Your task to perform on an android device: open a bookmark in the chrome app Image 0: 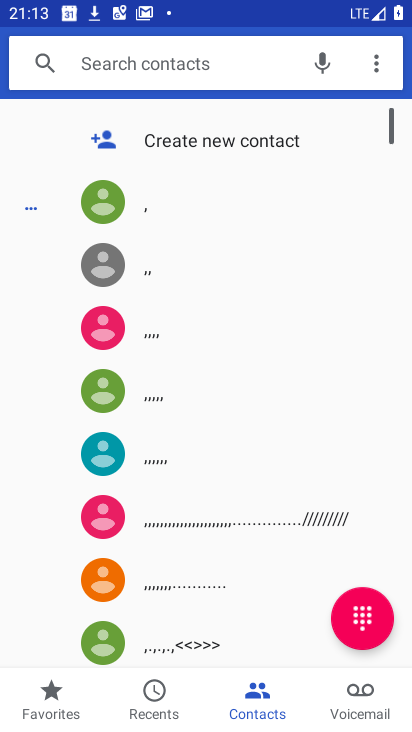
Step 0: press home button
Your task to perform on an android device: open a bookmark in the chrome app Image 1: 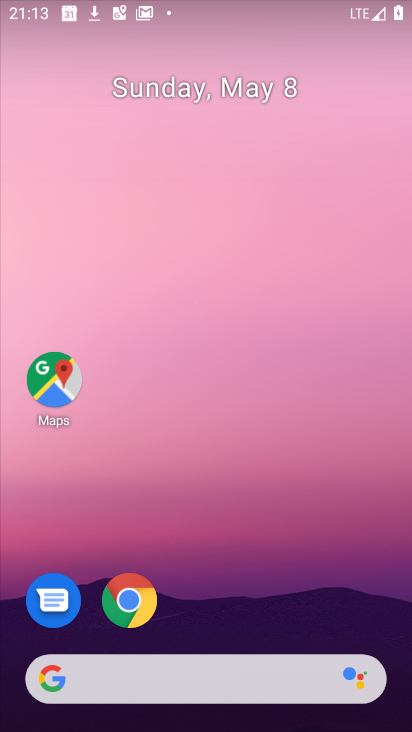
Step 1: drag from (216, 679) to (272, 233)
Your task to perform on an android device: open a bookmark in the chrome app Image 2: 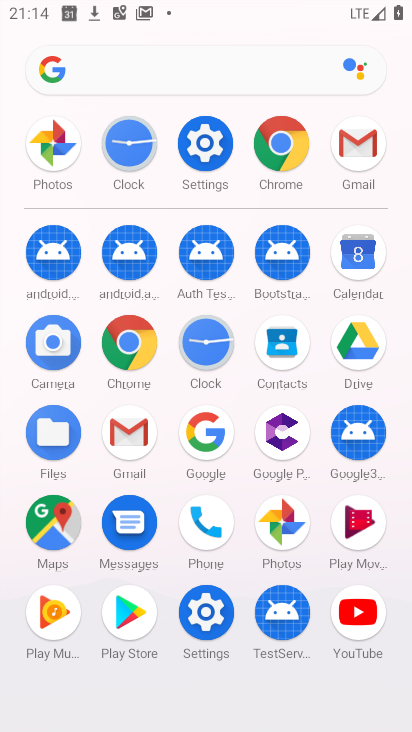
Step 2: click (122, 325)
Your task to perform on an android device: open a bookmark in the chrome app Image 3: 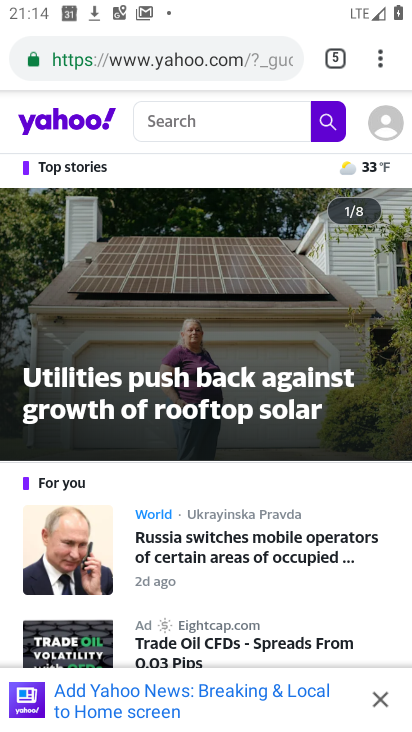
Step 3: click (375, 70)
Your task to perform on an android device: open a bookmark in the chrome app Image 4: 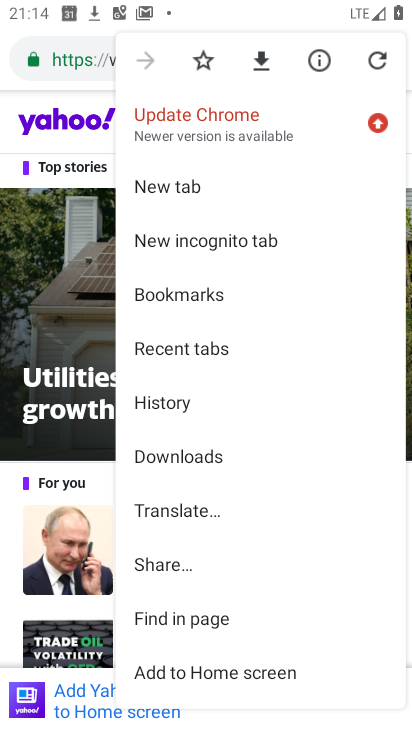
Step 4: click (199, 300)
Your task to perform on an android device: open a bookmark in the chrome app Image 5: 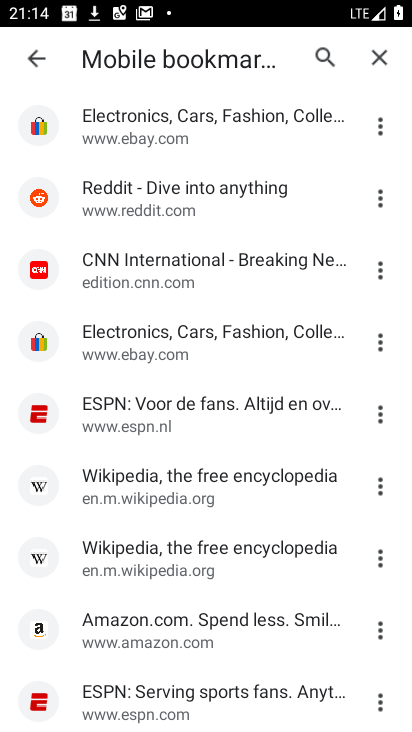
Step 5: click (150, 268)
Your task to perform on an android device: open a bookmark in the chrome app Image 6: 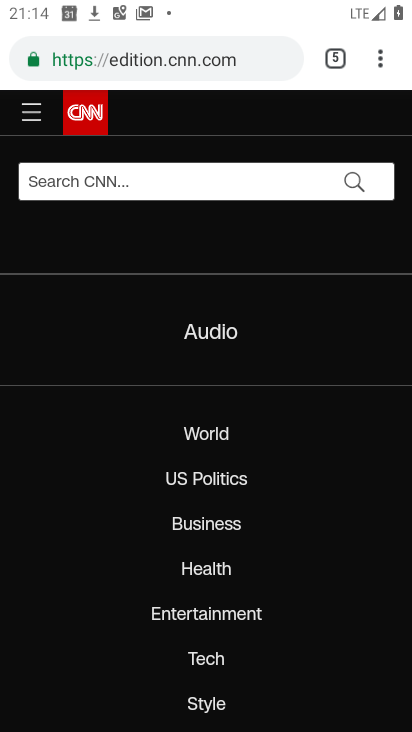
Step 6: task complete